Your task to perform on an android device: check battery use Image 0: 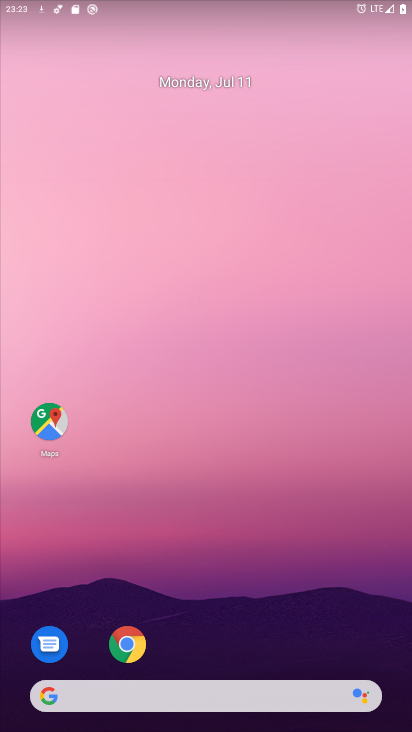
Step 0: drag from (204, 659) to (208, 224)
Your task to perform on an android device: check battery use Image 1: 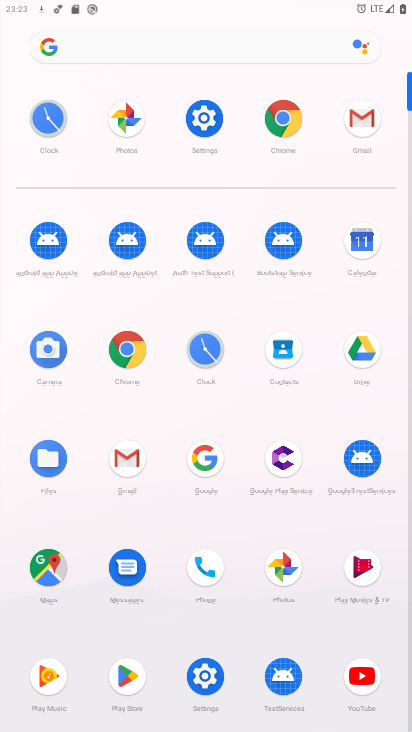
Step 1: click (206, 116)
Your task to perform on an android device: check battery use Image 2: 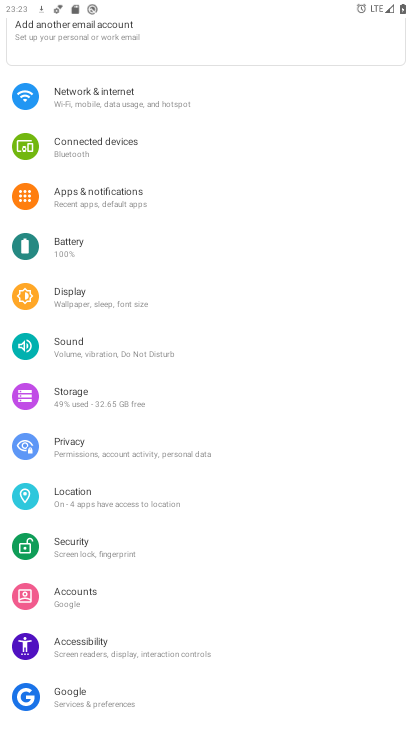
Step 2: click (78, 240)
Your task to perform on an android device: check battery use Image 3: 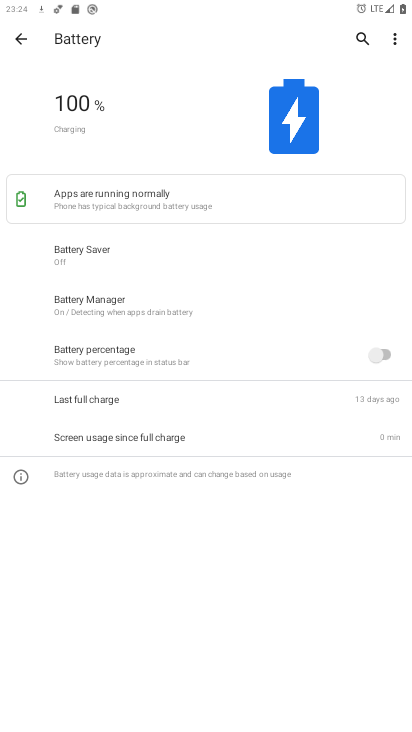
Step 3: task complete